Your task to perform on an android device: empty trash in google photos Image 0: 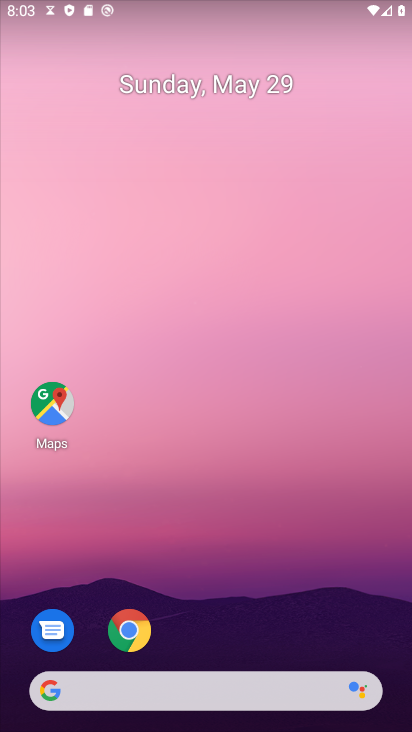
Step 0: drag from (254, 632) to (260, 219)
Your task to perform on an android device: empty trash in google photos Image 1: 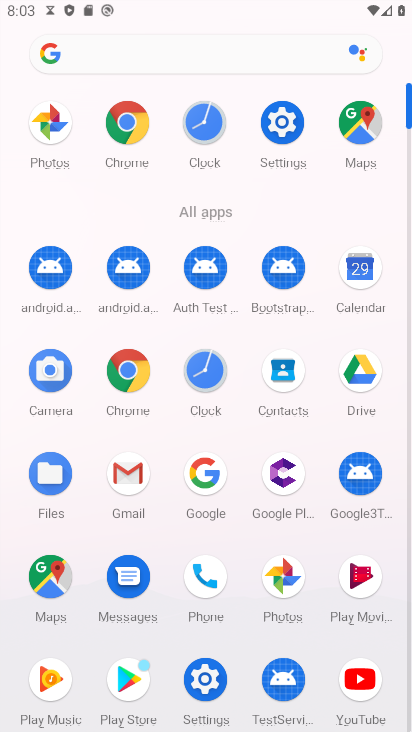
Step 1: click (284, 575)
Your task to perform on an android device: empty trash in google photos Image 2: 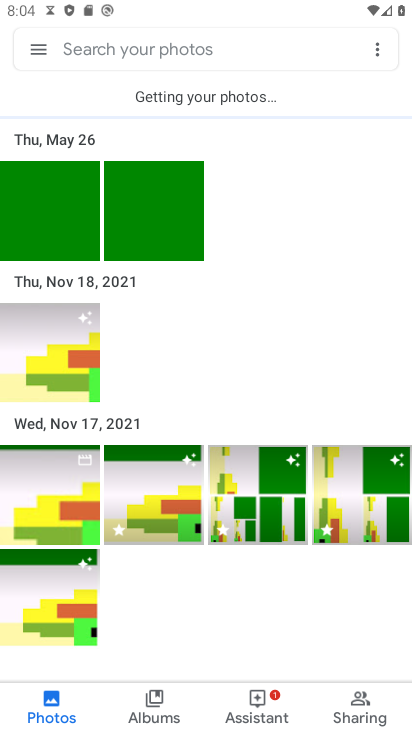
Step 2: click (35, 39)
Your task to perform on an android device: empty trash in google photos Image 3: 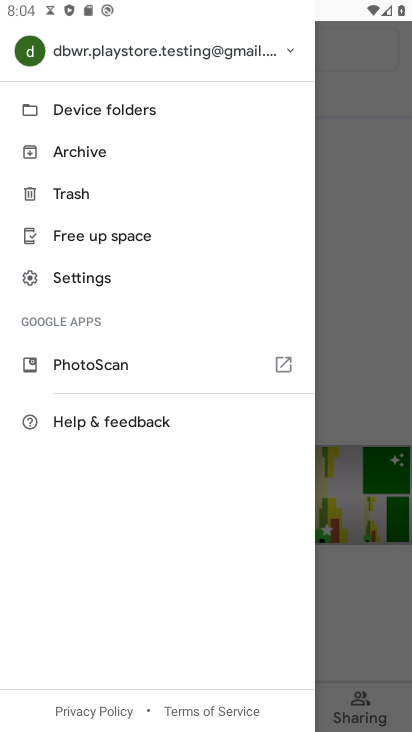
Step 3: click (55, 195)
Your task to perform on an android device: empty trash in google photos Image 4: 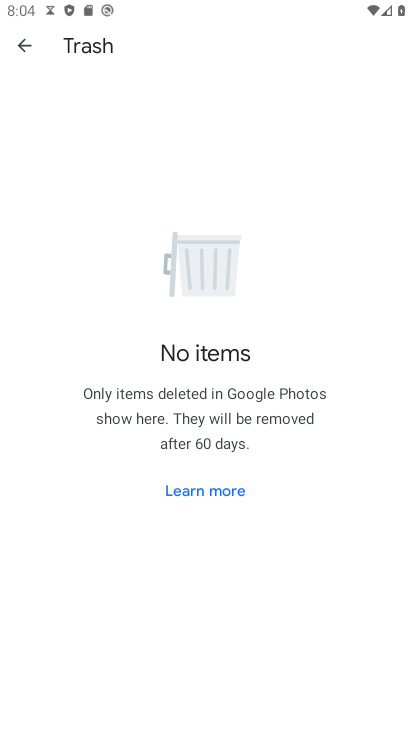
Step 4: task complete